Your task to perform on an android device: When is my next appointment? Image 0: 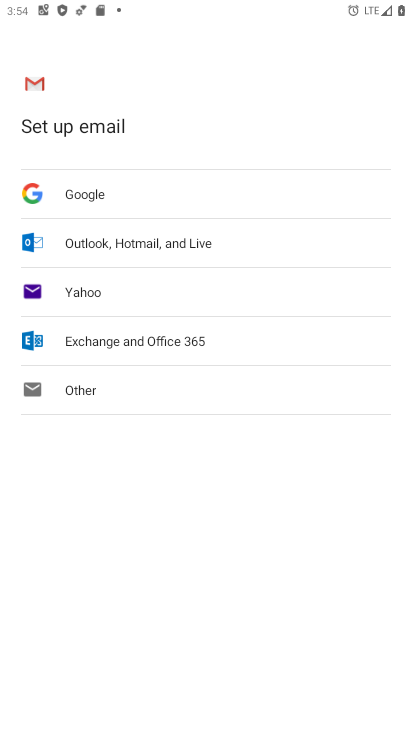
Step 0: press home button
Your task to perform on an android device: When is my next appointment? Image 1: 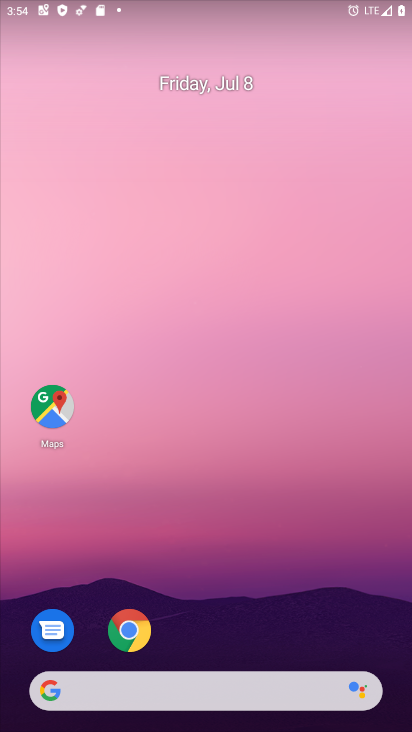
Step 1: drag from (232, 661) to (226, 51)
Your task to perform on an android device: When is my next appointment? Image 2: 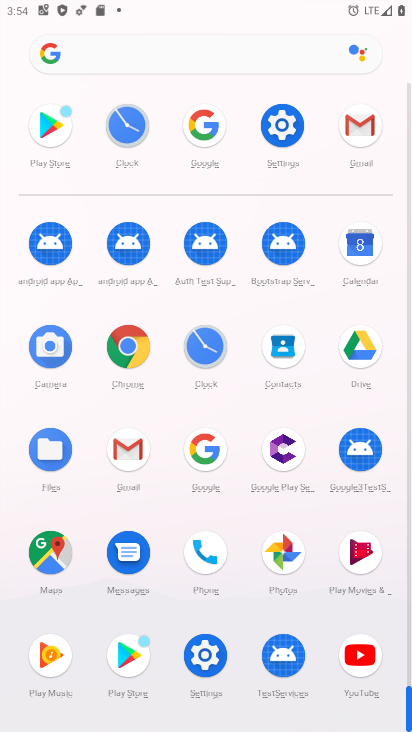
Step 2: click (359, 246)
Your task to perform on an android device: When is my next appointment? Image 3: 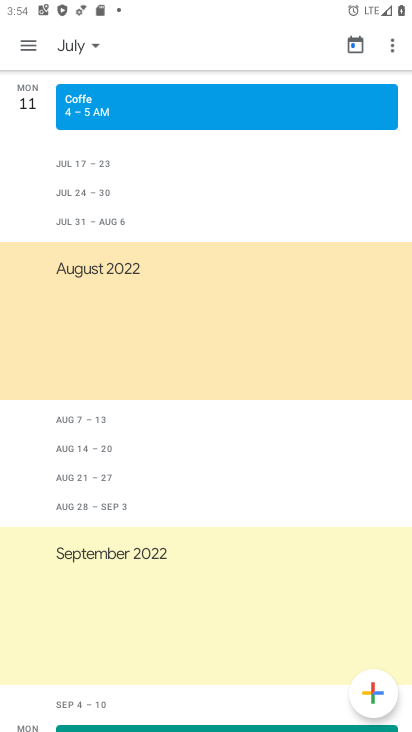
Step 3: click (362, 45)
Your task to perform on an android device: When is my next appointment? Image 4: 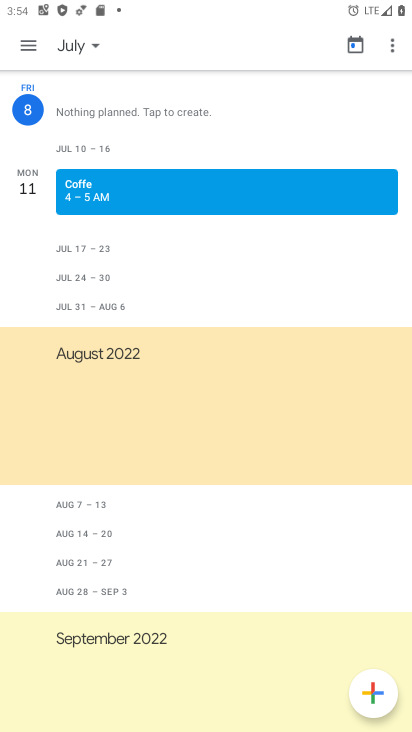
Step 4: click (98, 45)
Your task to perform on an android device: When is my next appointment? Image 5: 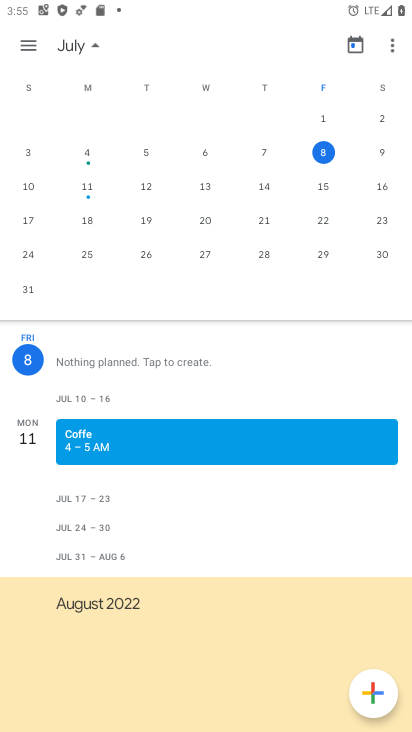
Step 5: click (88, 184)
Your task to perform on an android device: When is my next appointment? Image 6: 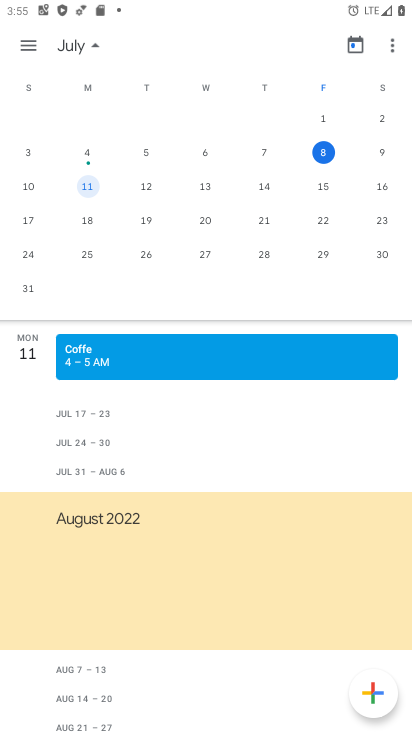
Step 6: click (35, 50)
Your task to perform on an android device: When is my next appointment? Image 7: 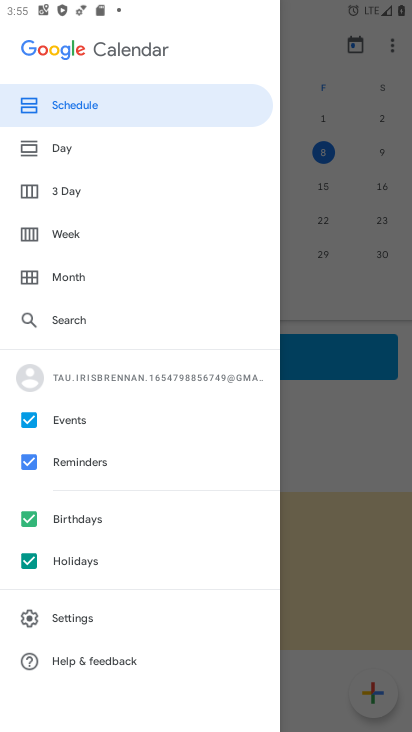
Step 7: click (70, 234)
Your task to perform on an android device: When is my next appointment? Image 8: 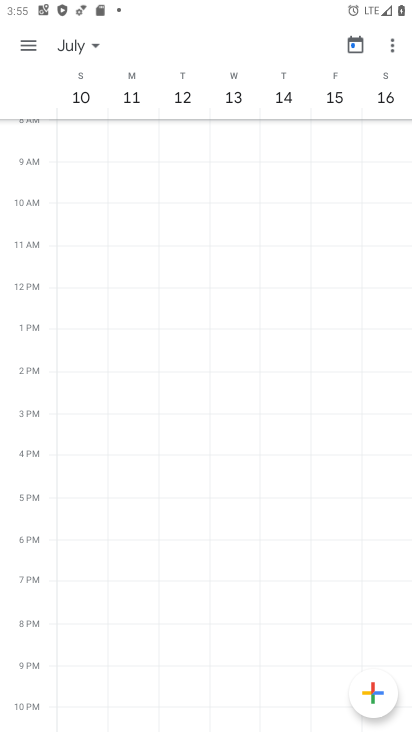
Step 8: task complete